Your task to perform on an android device: open app "Venmo" (install if not already installed) and enter user name: "bleedings@gmail.com" and password: "copied" Image 0: 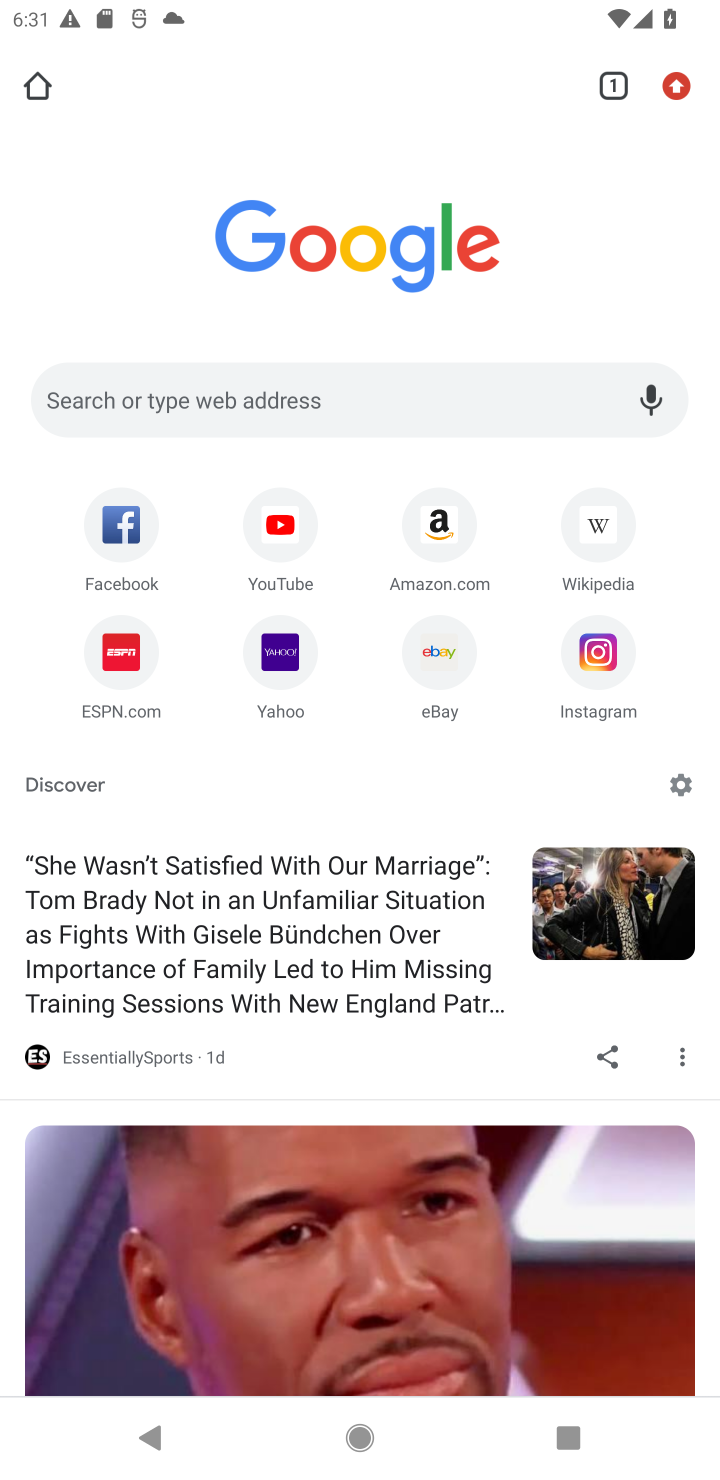
Step 0: press home button
Your task to perform on an android device: open app "Venmo" (install if not already installed) and enter user name: "bleedings@gmail.com" and password: "copied" Image 1: 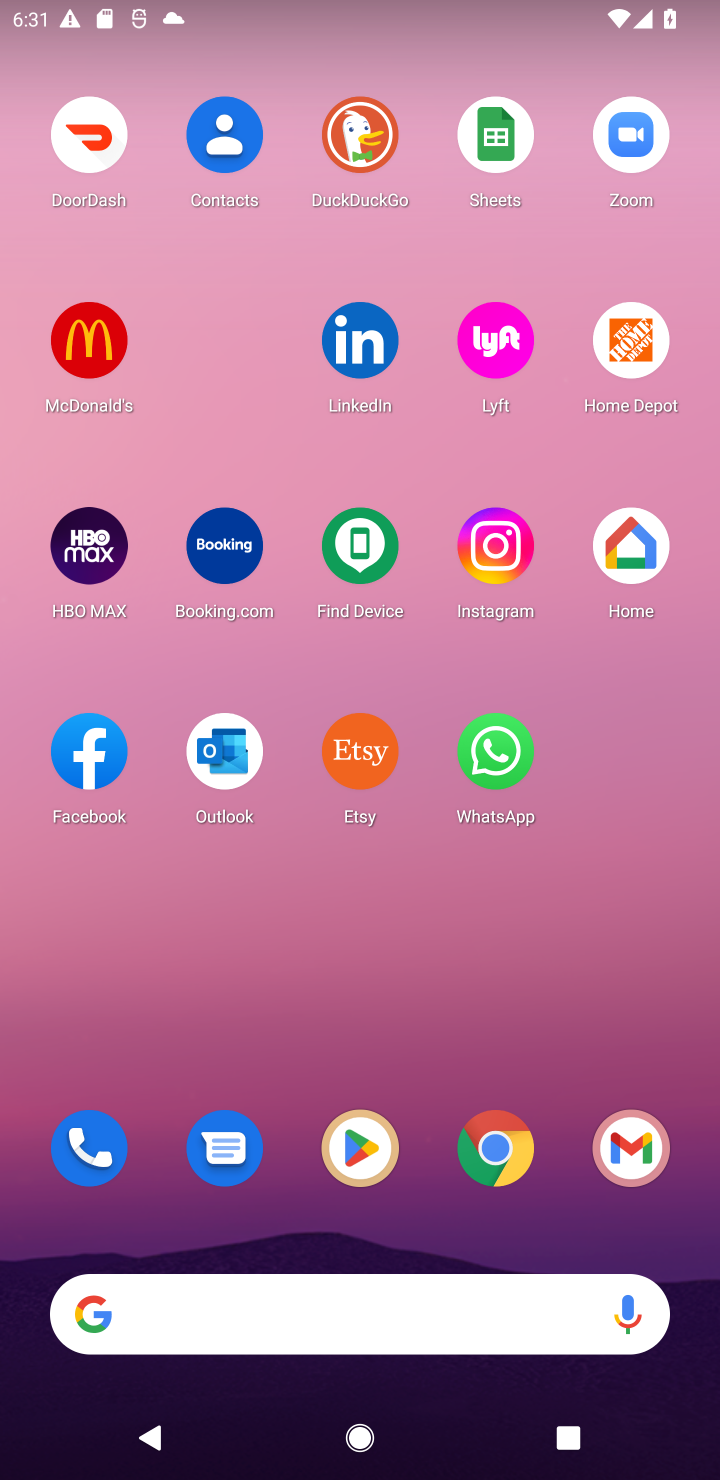
Step 1: drag from (359, 1051) to (39, 454)
Your task to perform on an android device: open app "Venmo" (install if not already installed) and enter user name: "bleedings@gmail.com" and password: "copied" Image 2: 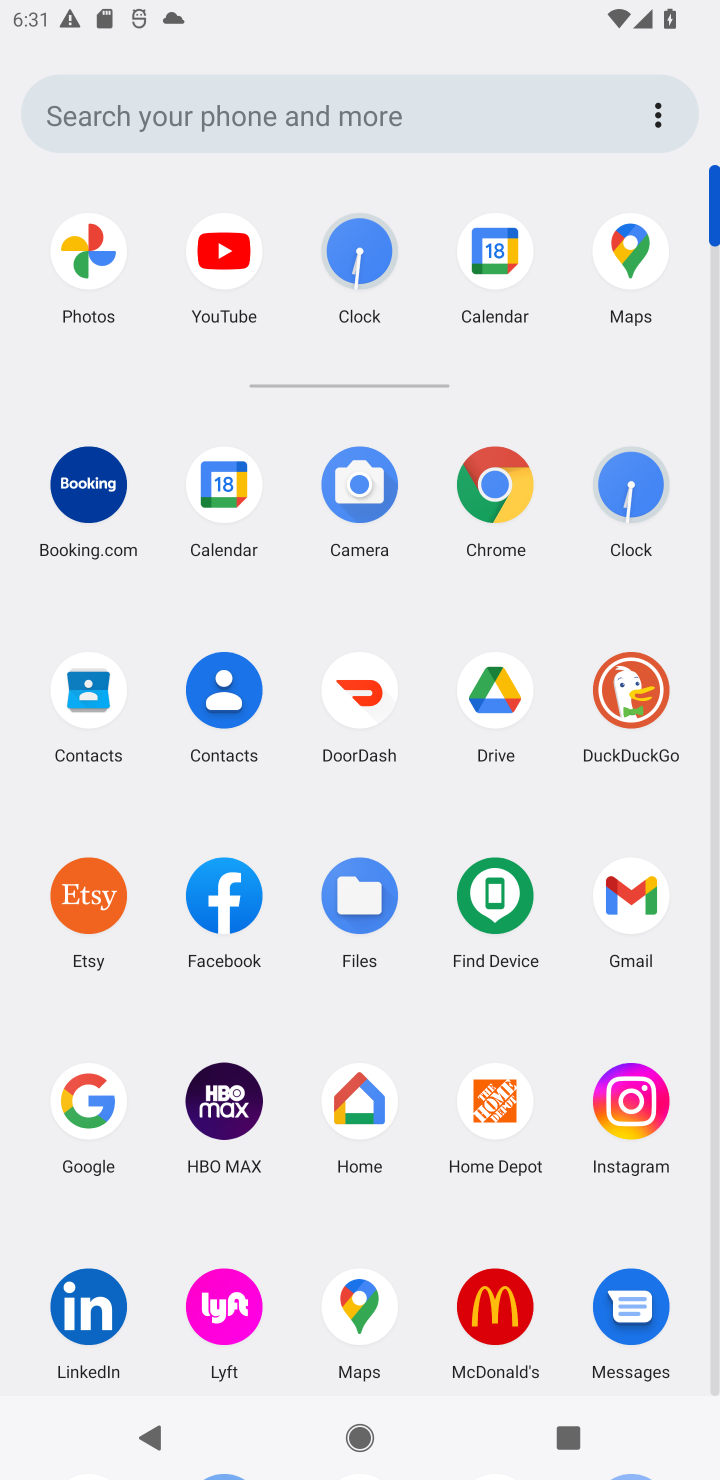
Step 2: drag from (359, 953) to (269, 216)
Your task to perform on an android device: open app "Venmo" (install if not already installed) and enter user name: "bleedings@gmail.com" and password: "copied" Image 3: 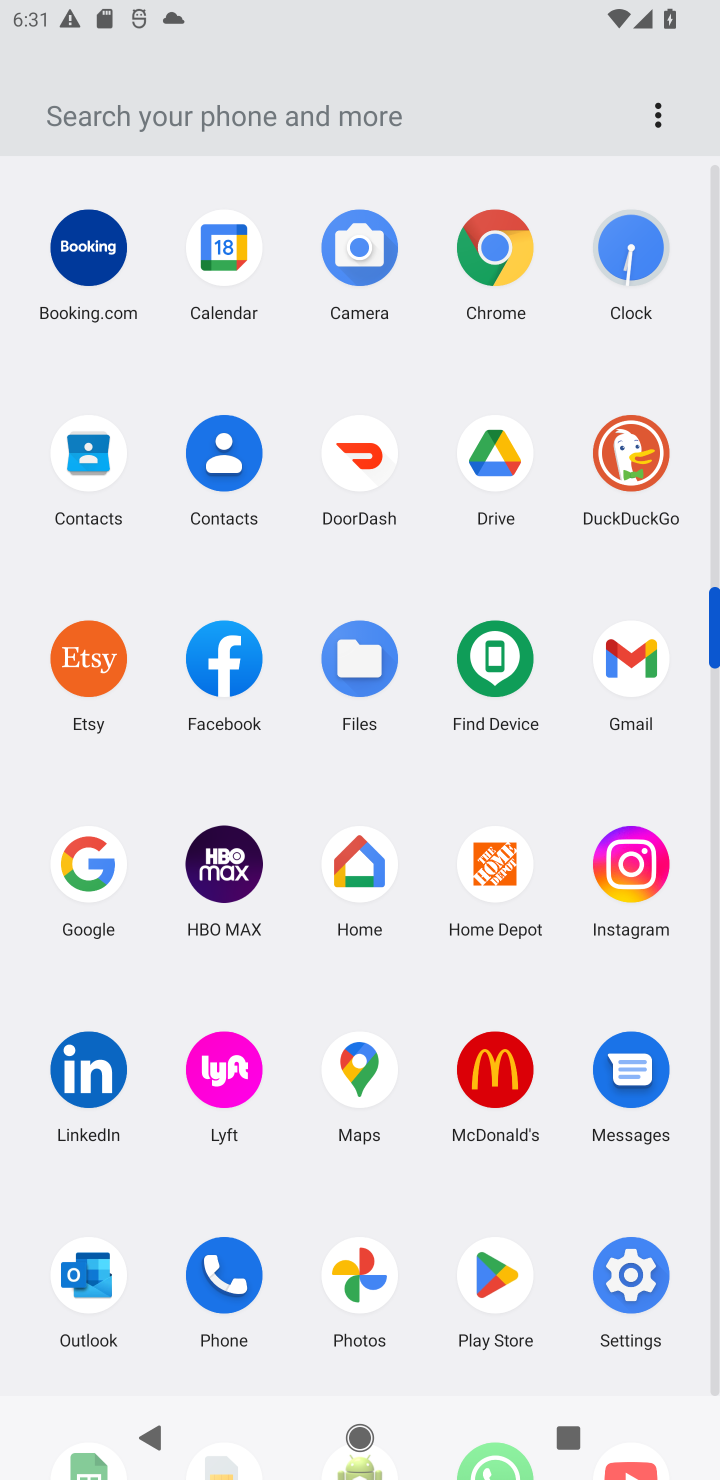
Step 3: drag from (432, 1023) to (259, 5)
Your task to perform on an android device: open app "Venmo" (install if not already installed) and enter user name: "bleedings@gmail.com" and password: "copied" Image 4: 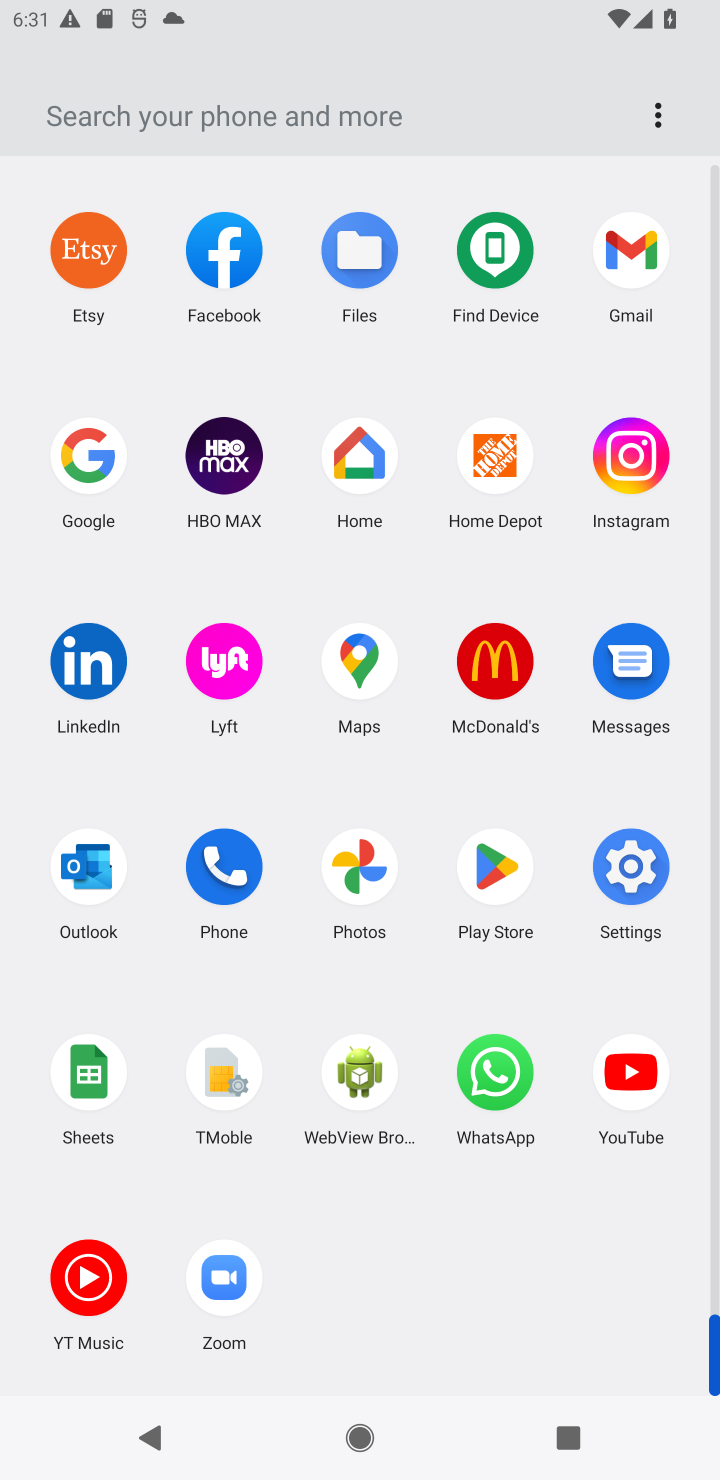
Step 4: click (472, 872)
Your task to perform on an android device: open app "Venmo" (install if not already installed) and enter user name: "bleedings@gmail.com" and password: "copied" Image 5: 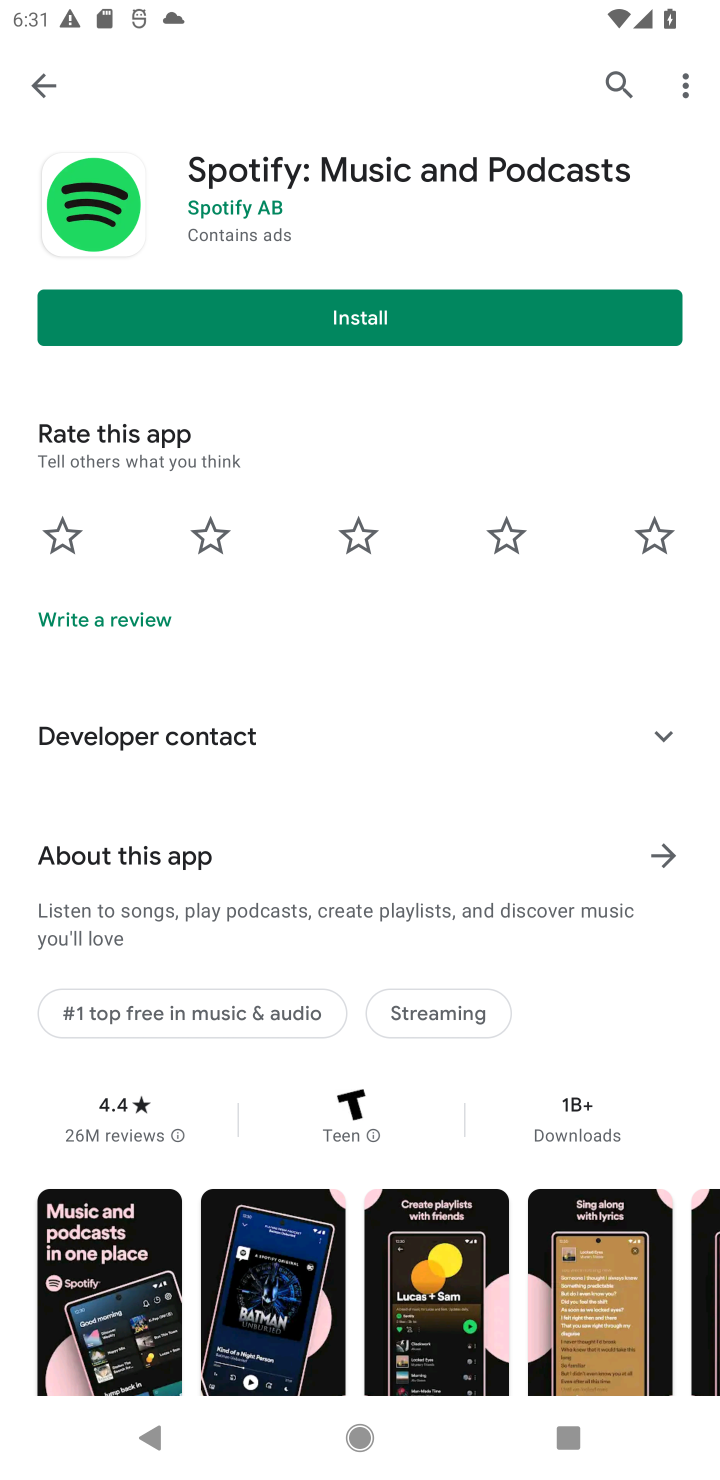
Step 5: press back button
Your task to perform on an android device: open app "Venmo" (install if not already installed) and enter user name: "bleedings@gmail.com" and password: "copied" Image 6: 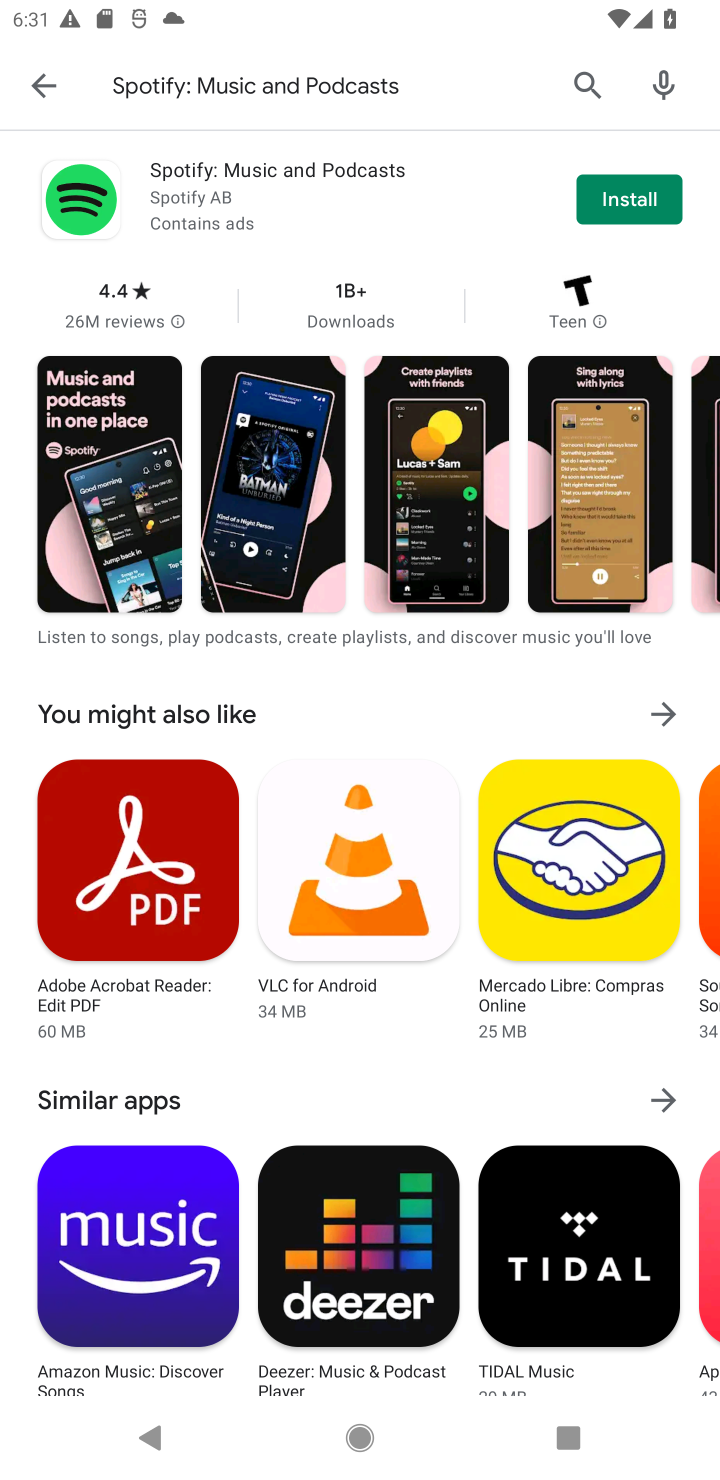
Step 6: press back button
Your task to perform on an android device: open app "Venmo" (install if not already installed) and enter user name: "bleedings@gmail.com" and password: "copied" Image 7: 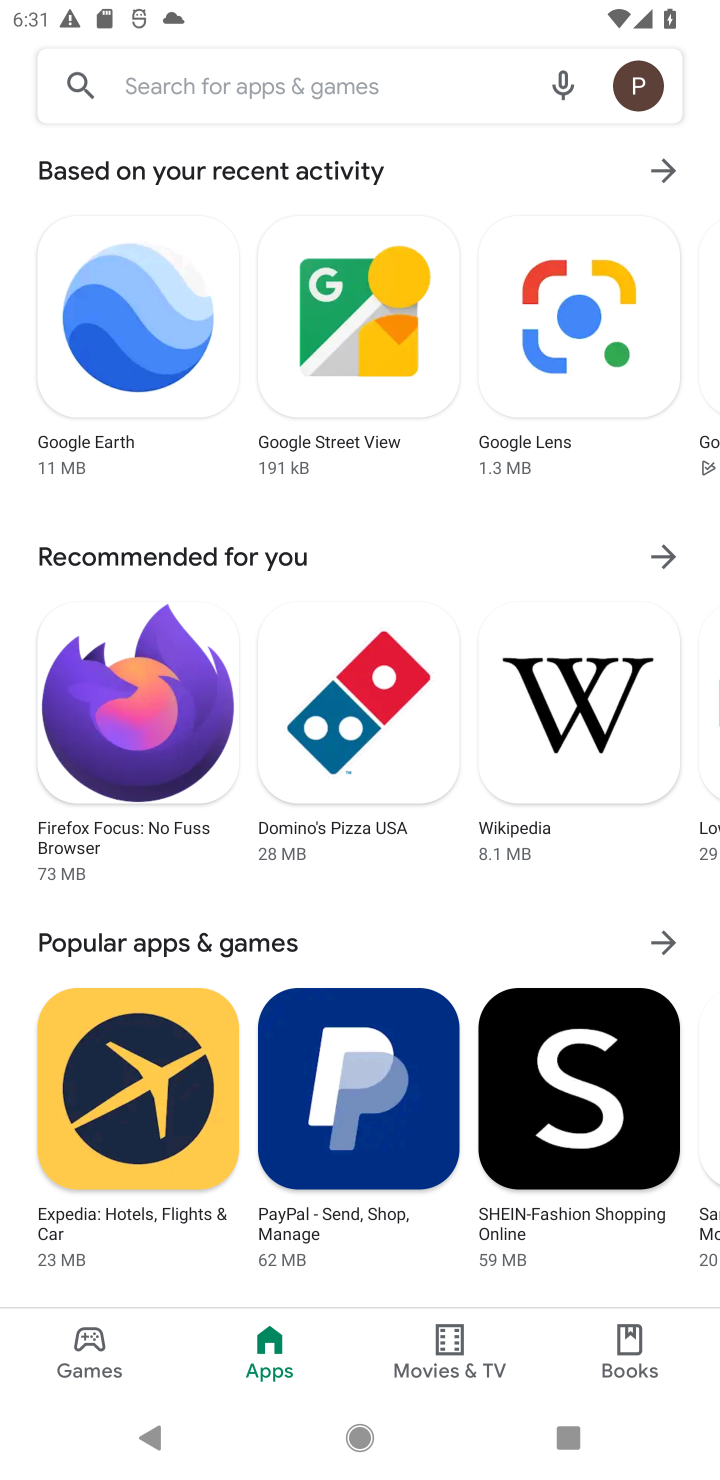
Step 7: click (237, 89)
Your task to perform on an android device: open app "Venmo" (install if not already installed) and enter user name: "bleedings@gmail.com" and password: "copied" Image 8: 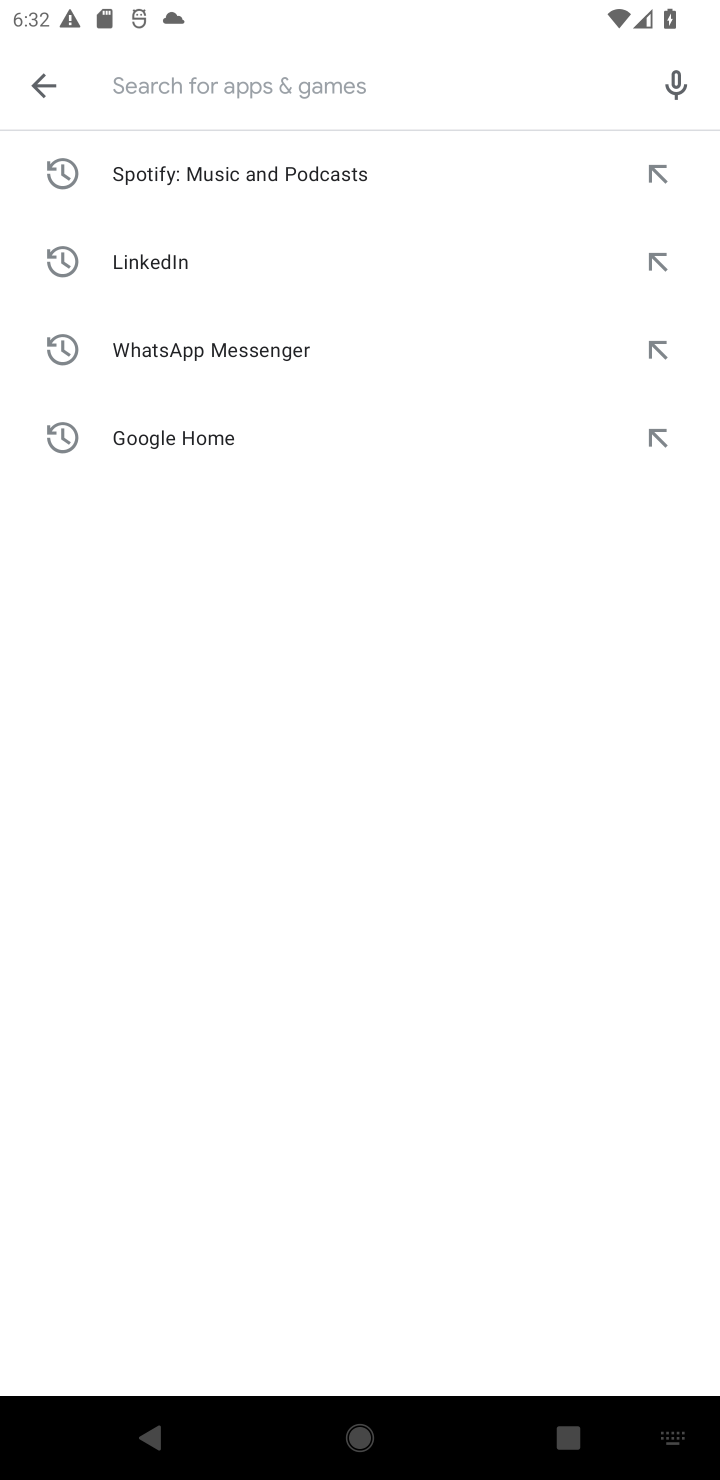
Step 8: type "Venmo"
Your task to perform on an android device: open app "Venmo" (install if not already installed) and enter user name: "bleedings@gmail.com" and password: "copied" Image 9: 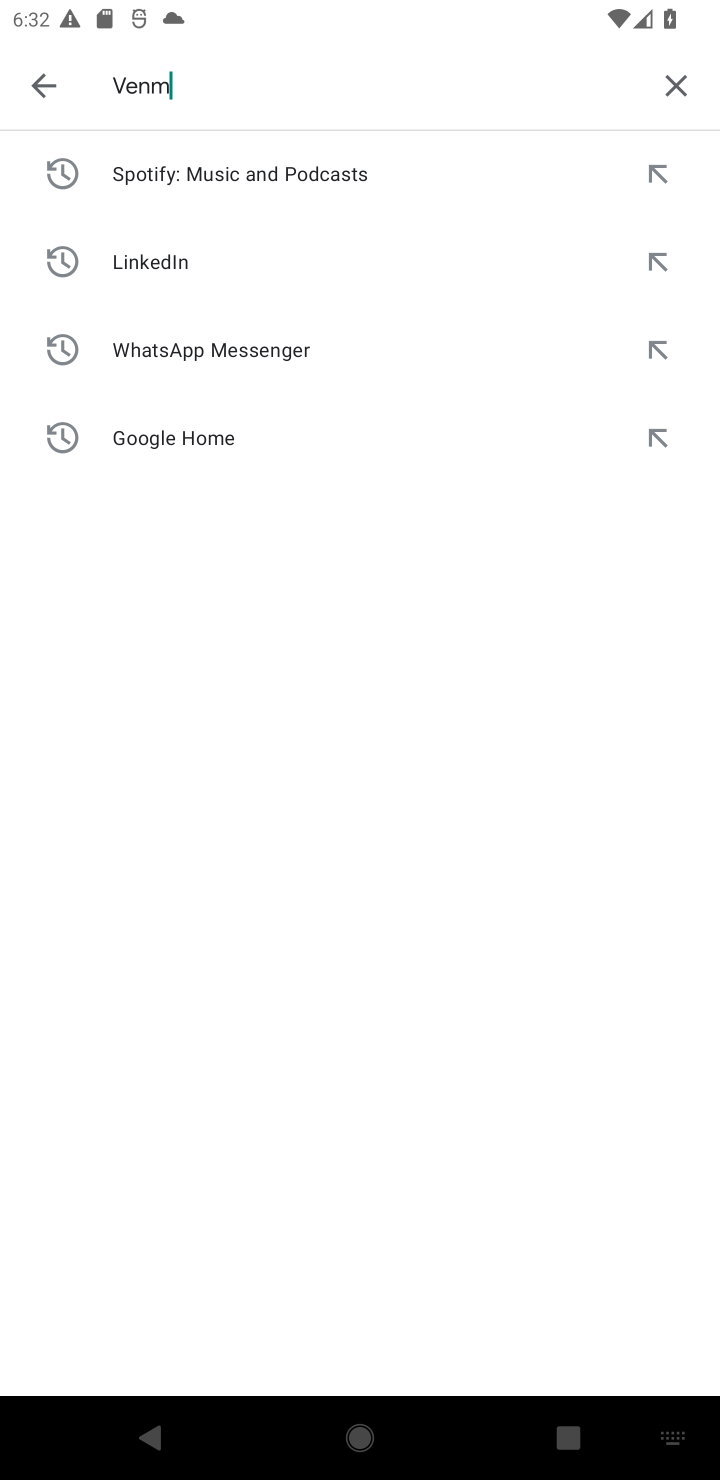
Step 9: press enter
Your task to perform on an android device: open app "Venmo" (install if not already installed) and enter user name: "bleedings@gmail.com" and password: "copied" Image 10: 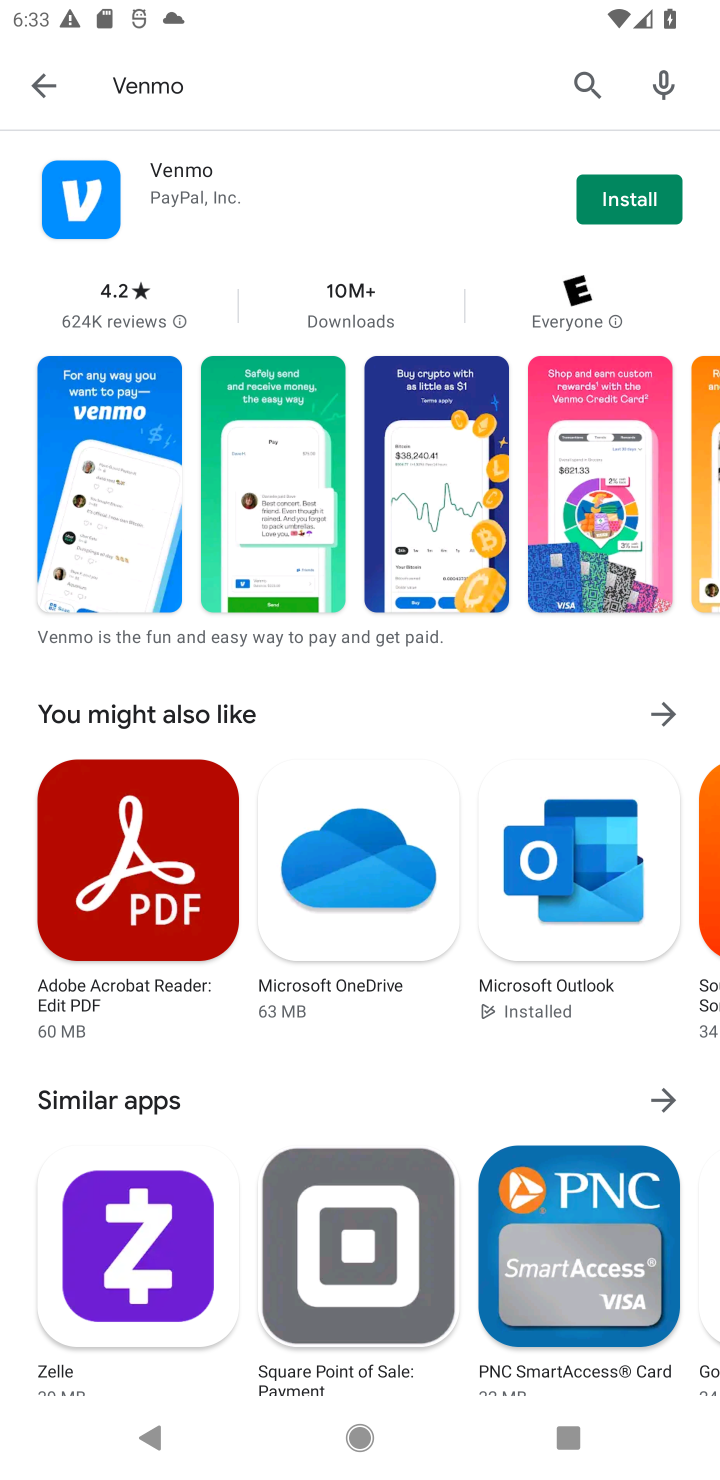
Step 10: click (619, 198)
Your task to perform on an android device: open app "Venmo" (install if not already installed) and enter user name: "bleedings@gmail.com" and password: "copied" Image 11: 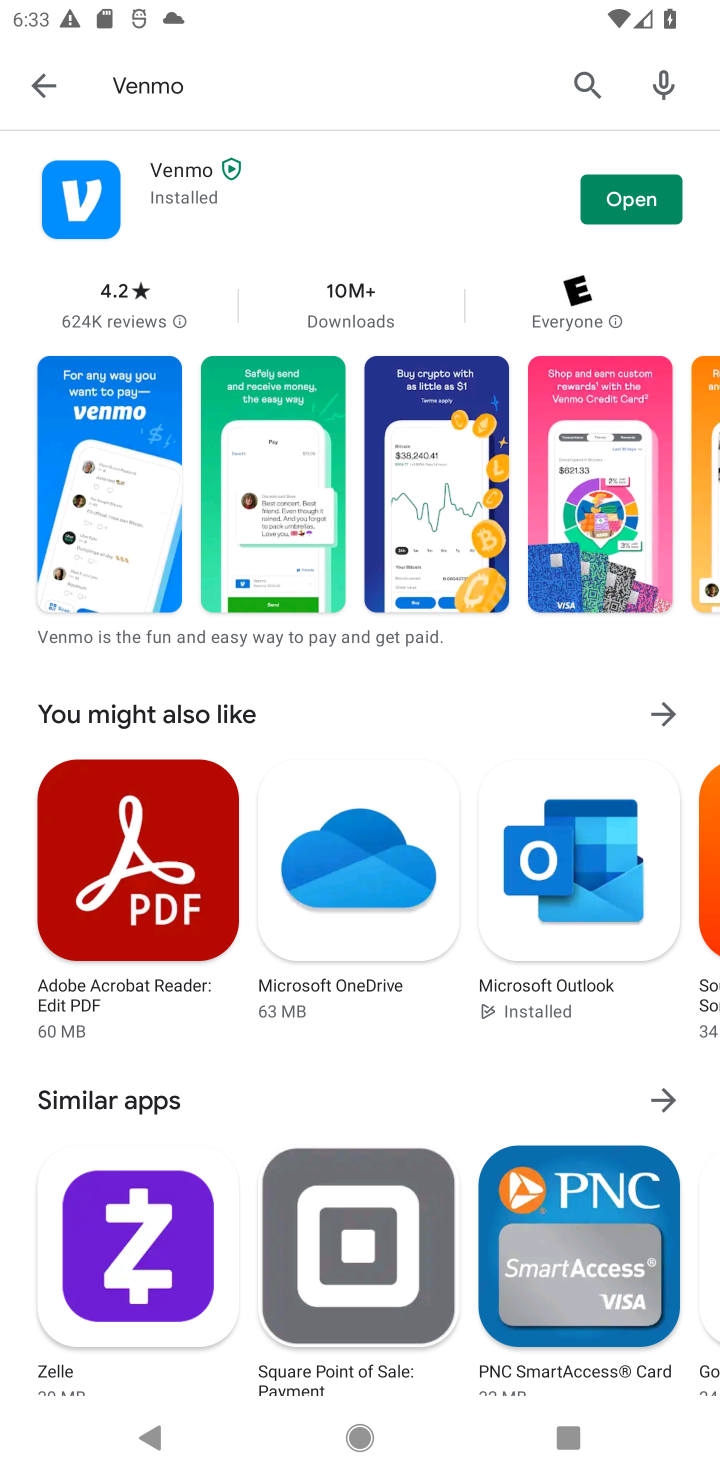
Step 11: click (619, 186)
Your task to perform on an android device: open app "Venmo" (install if not already installed) and enter user name: "bleedings@gmail.com" and password: "copied" Image 12: 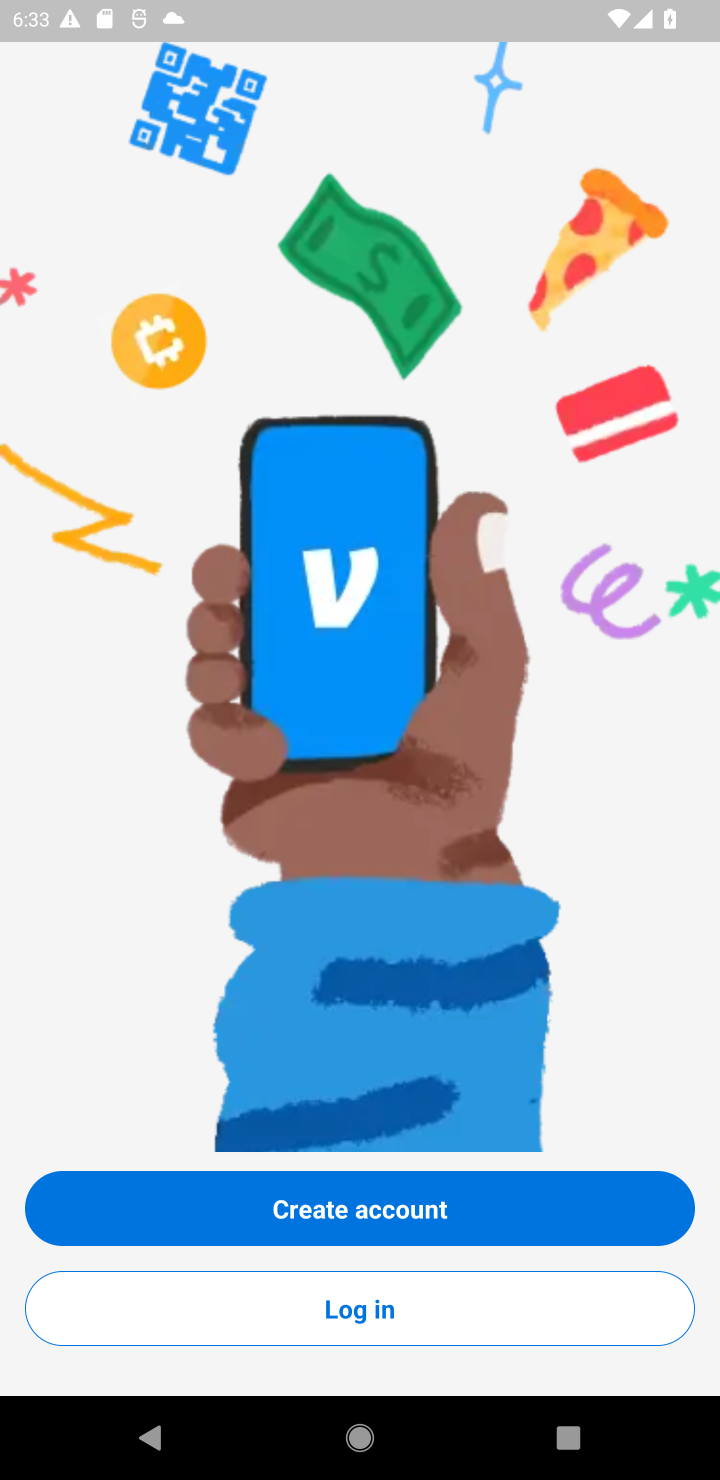
Step 12: click (400, 1329)
Your task to perform on an android device: open app "Venmo" (install if not already installed) and enter user name: "bleedings@gmail.com" and password: "copied" Image 13: 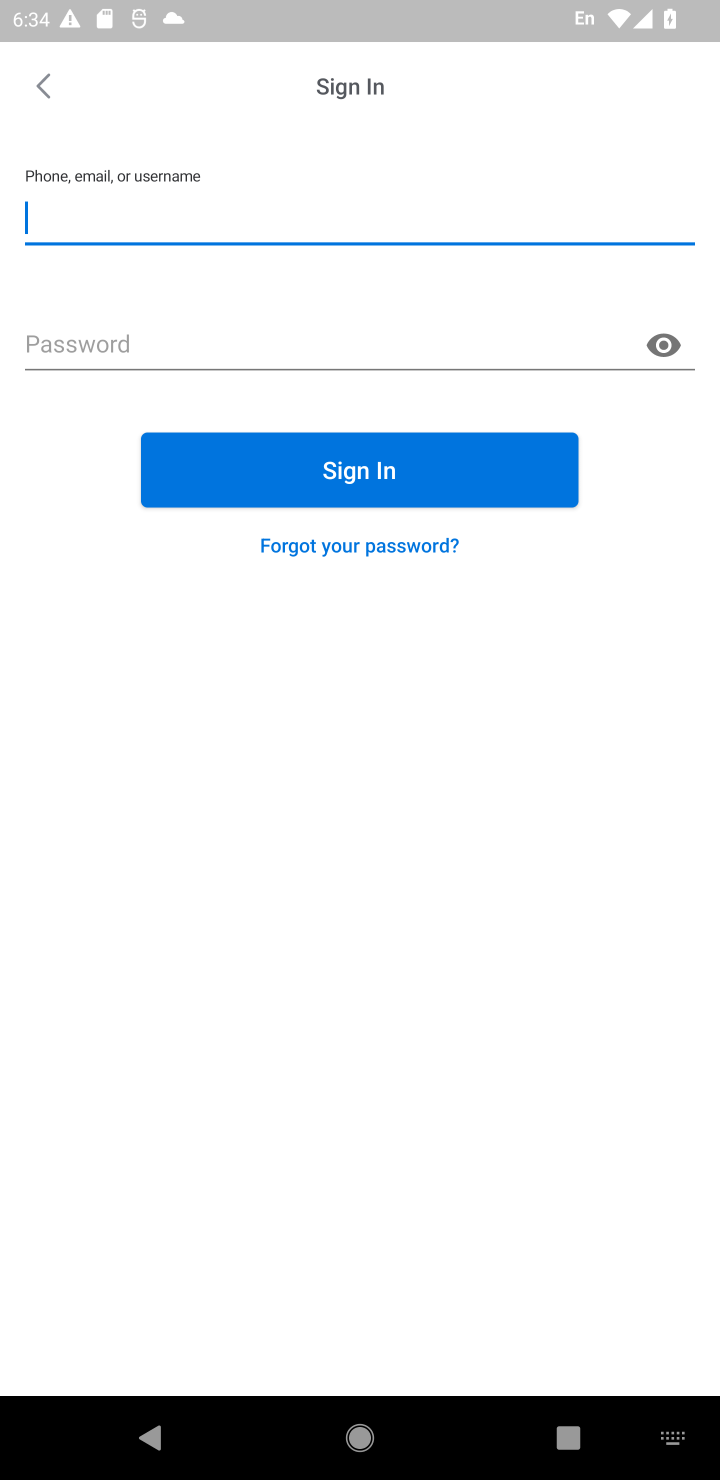
Step 13: type "bleedings@gmail.com"
Your task to perform on an android device: open app "Venmo" (install if not already installed) and enter user name: "bleedings@gmail.com" and password: "copied" Image 14: 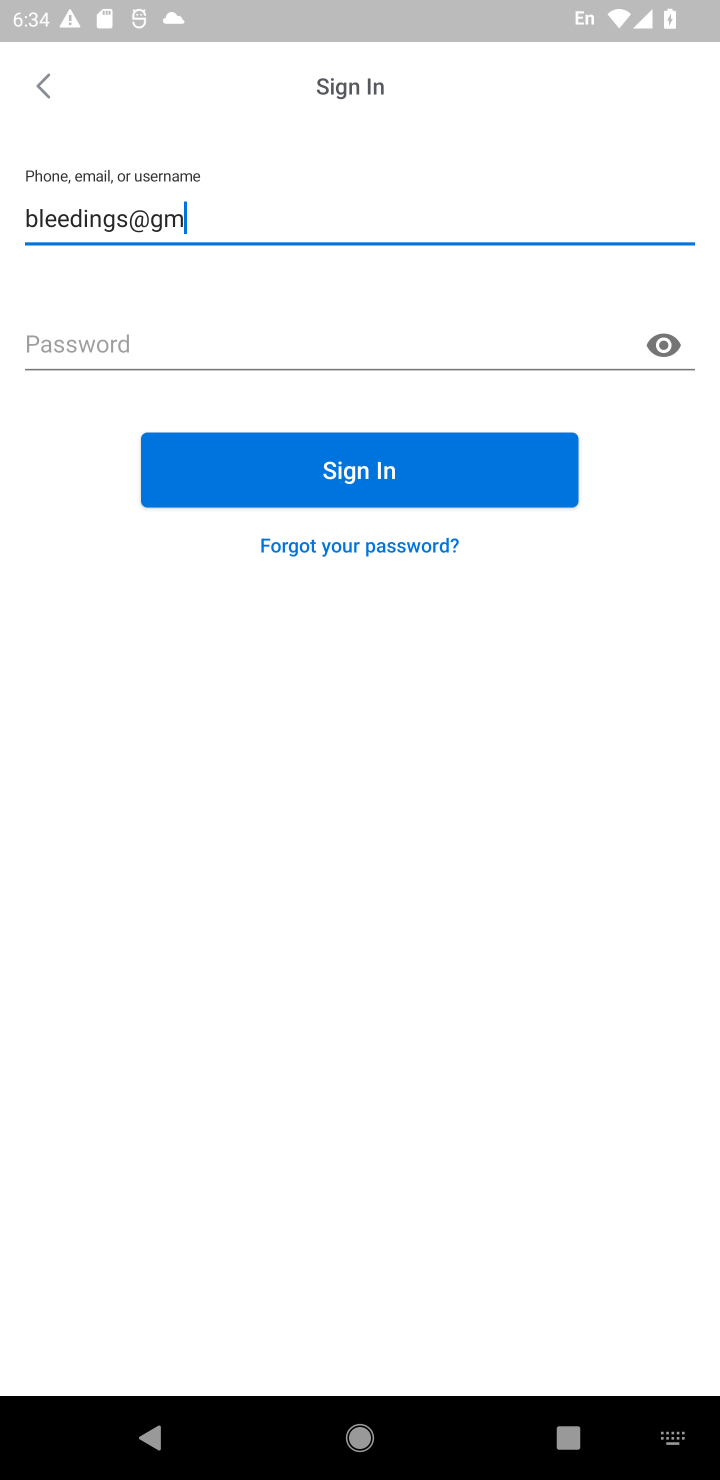
Step 14: press enter
Your task to perform on an android device: open app "Venmo" (install if not already installed) and enter user name: "bleedings@gmail.com" and password: "copied" Image 15: 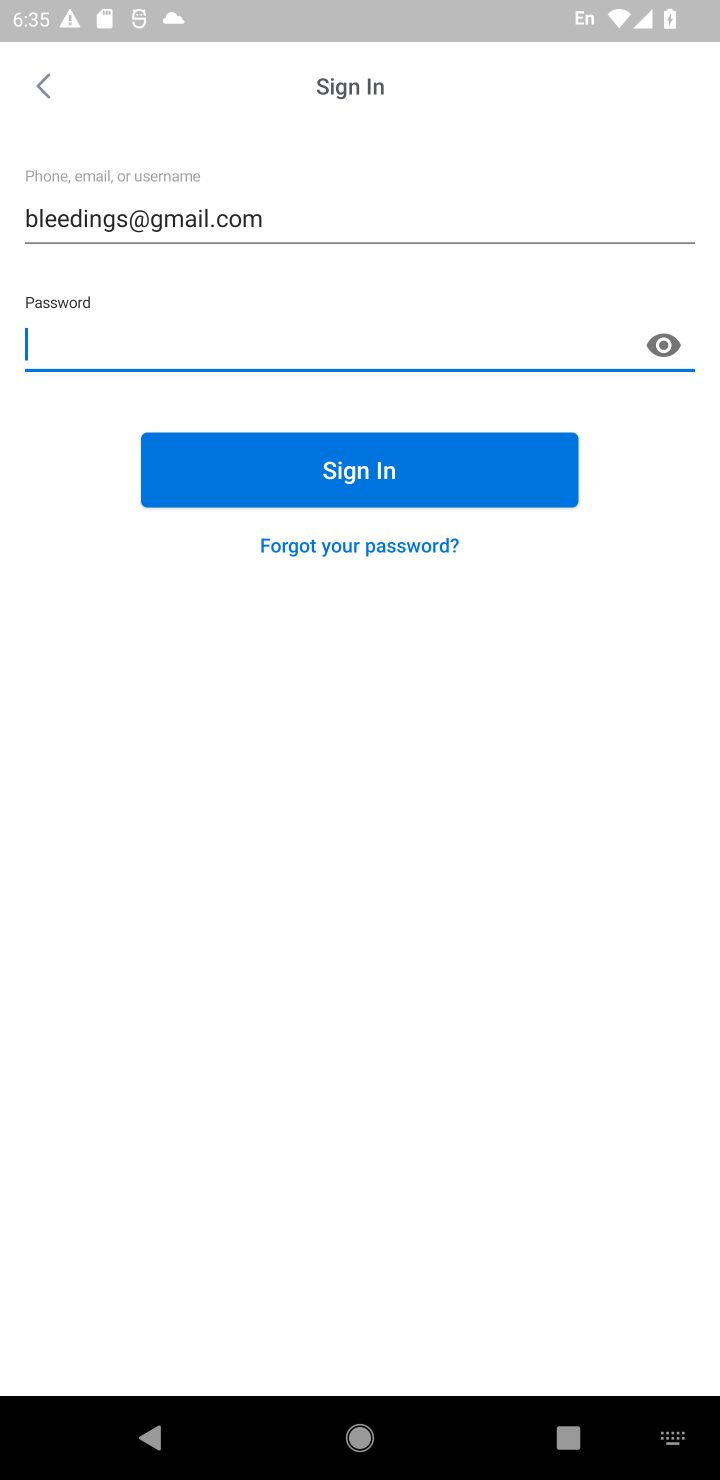
Step 15: type "copied"
Your task to perform on an android device: open app "Venmo" (install if not already installed) and enter user name: "bleedings@gmail.com" and password: "copied" Image 16: 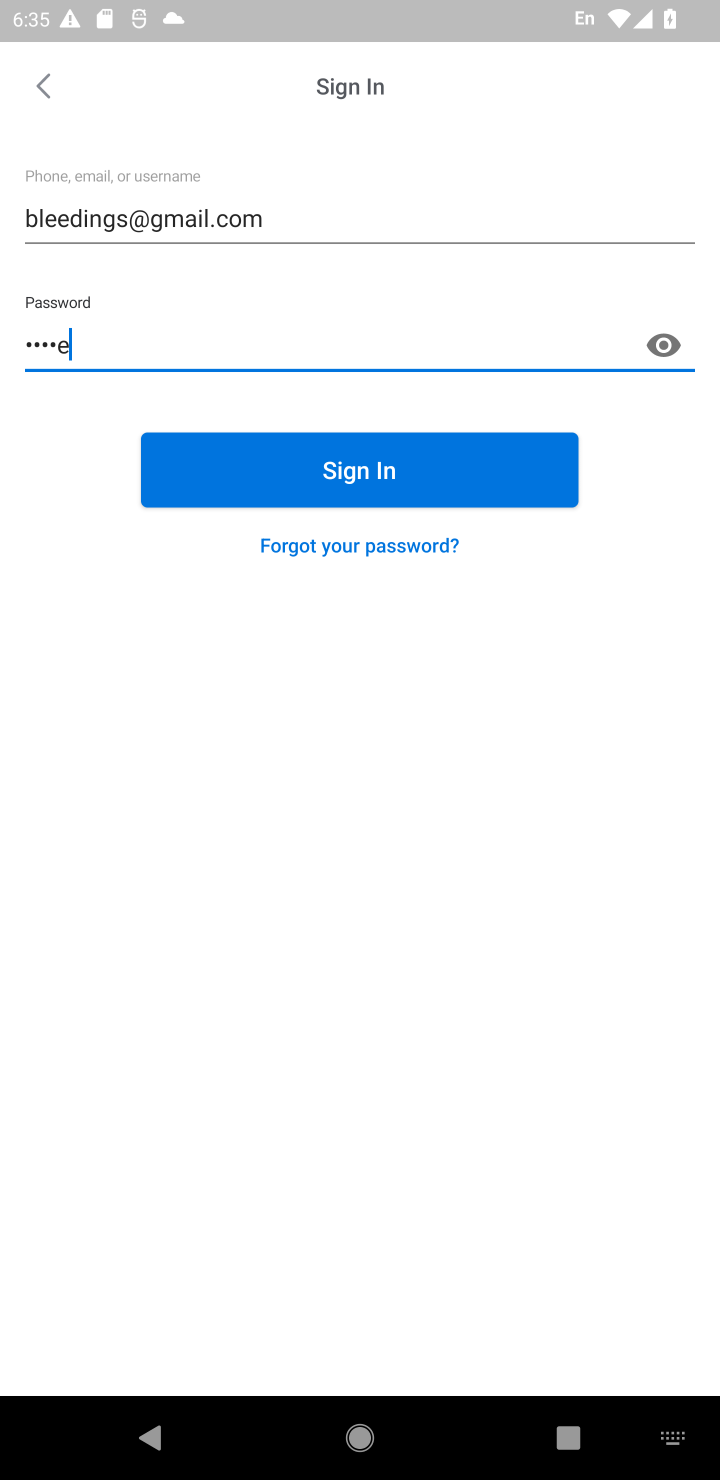
Step 16: press enter
Your task to perform on an android device: open app "Venmo" (install if not already installed) and enter user name: "bleedings@gmail.com" and password: "copied" Image 17: 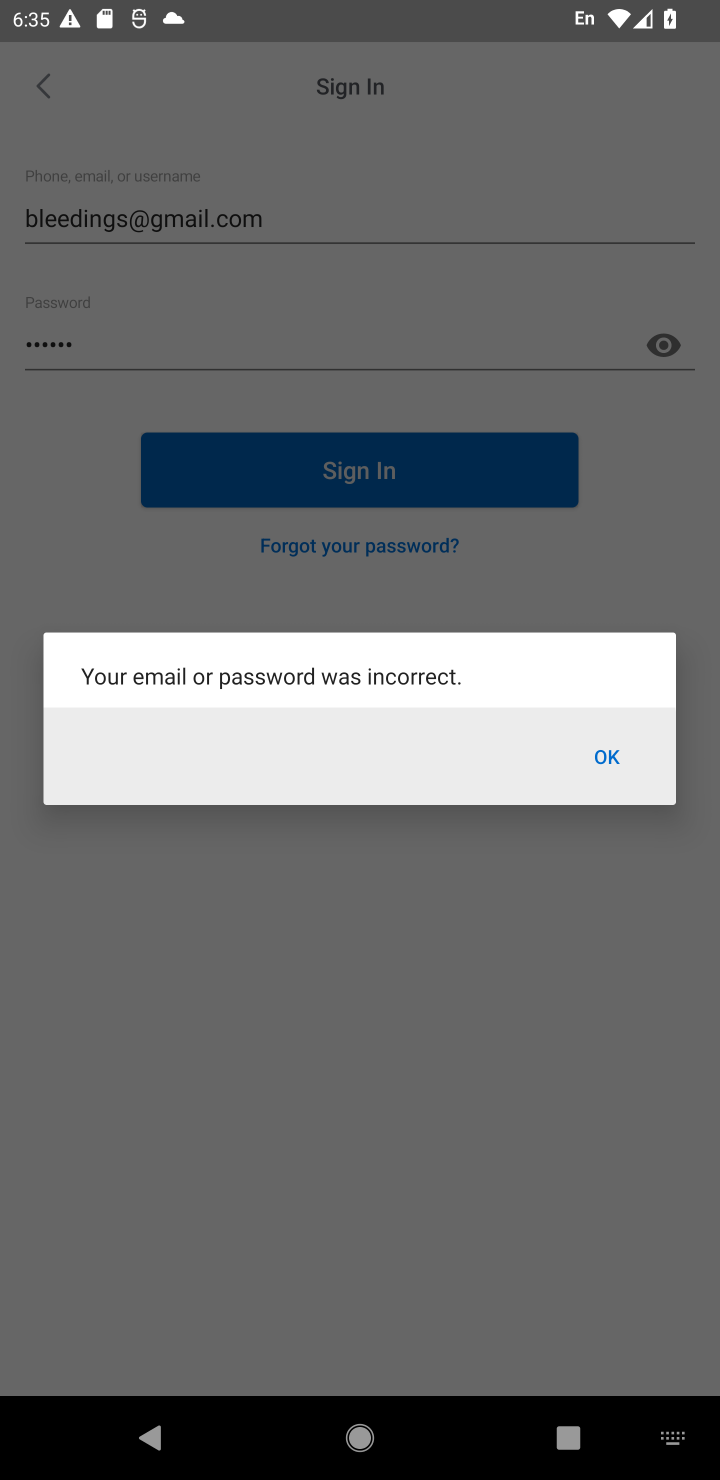
Step 17: task complete